Your task to perform on an android device: open chrome and create a bookmark for the current page Image 0: 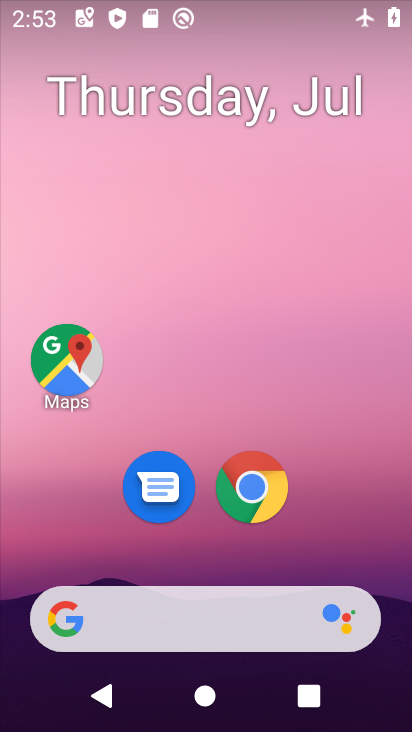
Step 0: drag from (357, 549) to (370, 152)
Your task to perform on an android device: open chrome and create a bookmark for the current page Image 1: 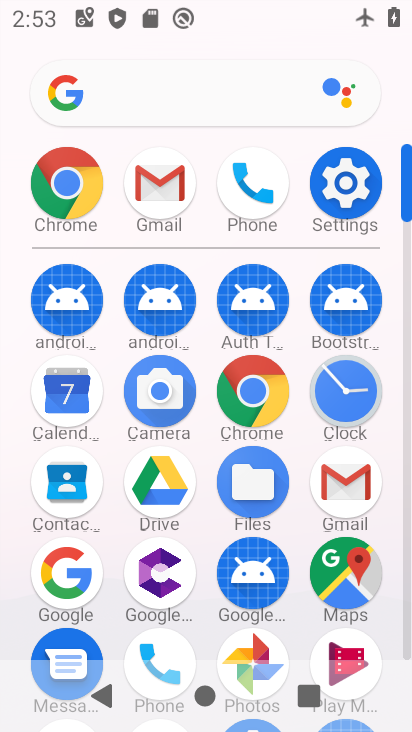
Step 1: click (272, 391)
Your task to perform on an android device: open chrome and create a bookmark for the current page Image 2: 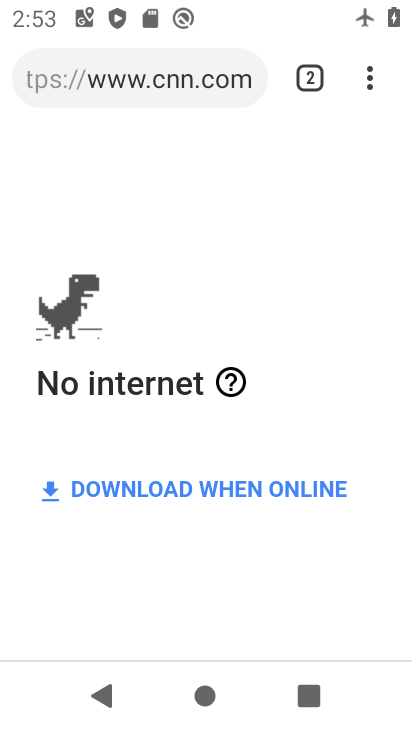
Step 2: click (371, 84)
Your task to perform on an android device: open chrome and create a bookmark for the current page Image 3: 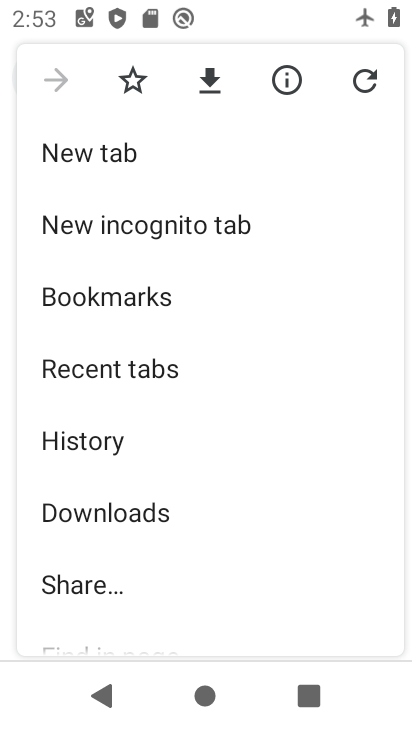
Step 3: click (138, 76)
Your task to perform on an android device: open chrome and create a bookmark for the current page Image 4: 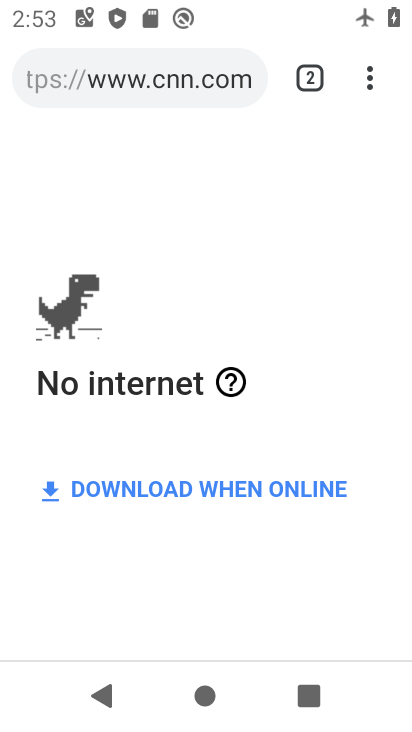
Step 4: task complete